Your task to perform on an android device: open chrome privacy settings Image 0: 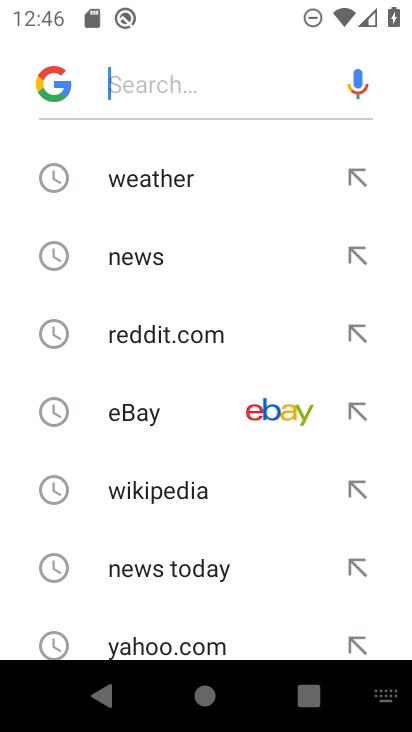
Step 0: press home button
Your task to perform on an android device: open chrome privacy settings Image 1: 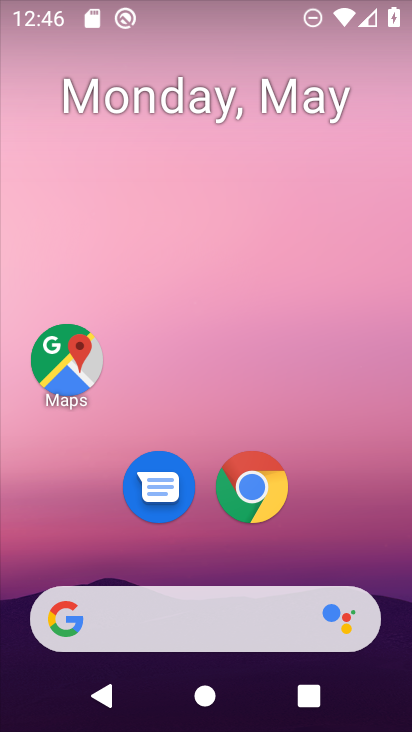
Step 1: click (254, 488)
Your task to perform on an android device: open chrome privacy settings Image 2: 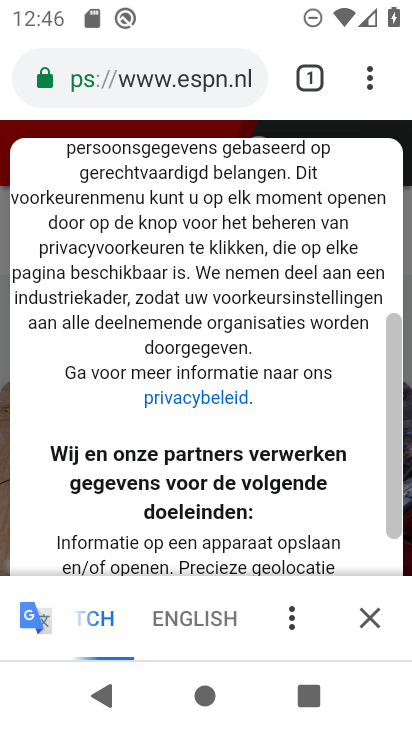
Step 2: click (373, 76)
Your task to perform on an android device: open chrome privacy settings Image 3: 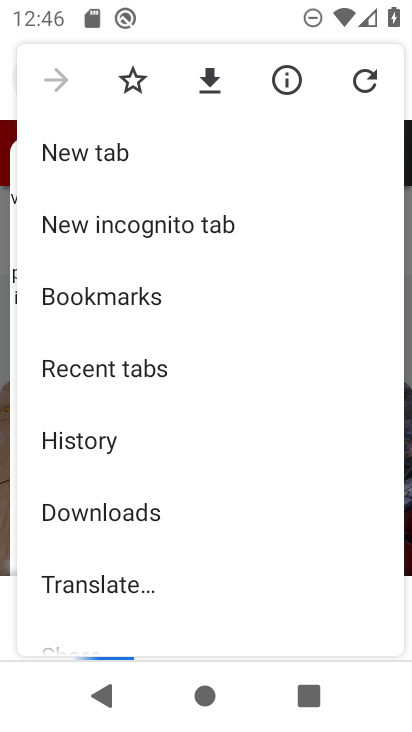
Step 3: drag from (171, 445) to (204, 328)
Your task to perform on an android device: open chrome privacy settings Image 4: 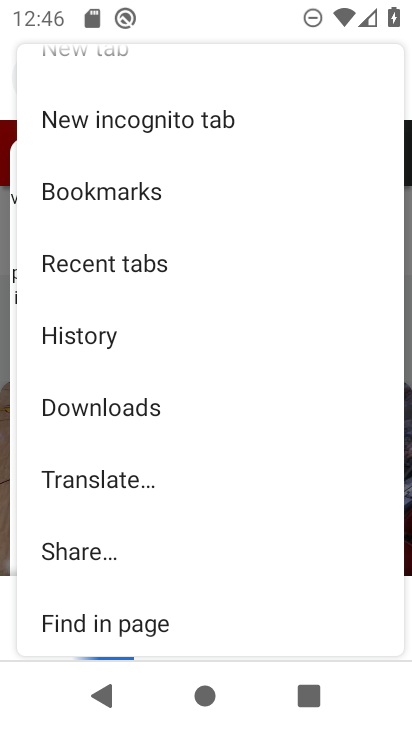
Step 4: drag from (149, 541) to (186, 451)
Your task to perform on an android device: open chrome privacy settings Image 5: 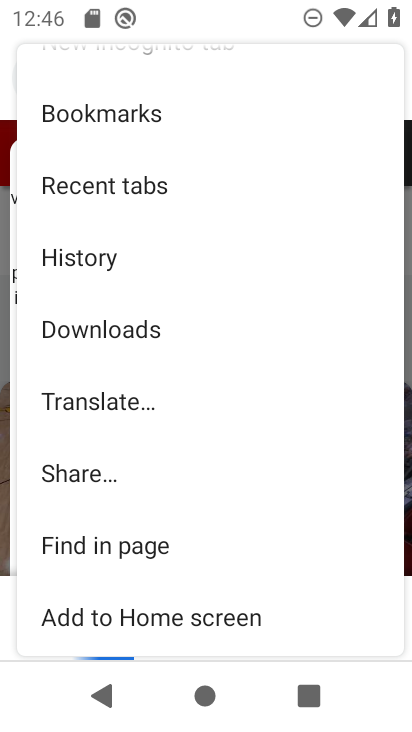
Step 5: drag from (157, 576) to (212, 476)
Your task to perform on an android device: open chrome privacy settings Image 6: 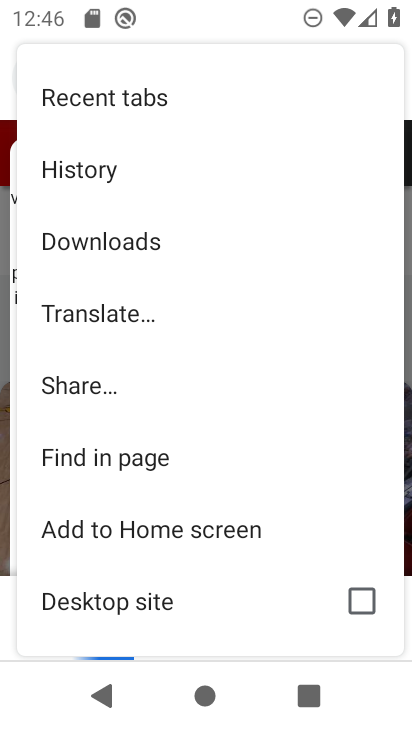
Step 6: drag from (200, 549) to (264, 470)
Your task to perform on an android device: open chrome privacy settings Image 7: 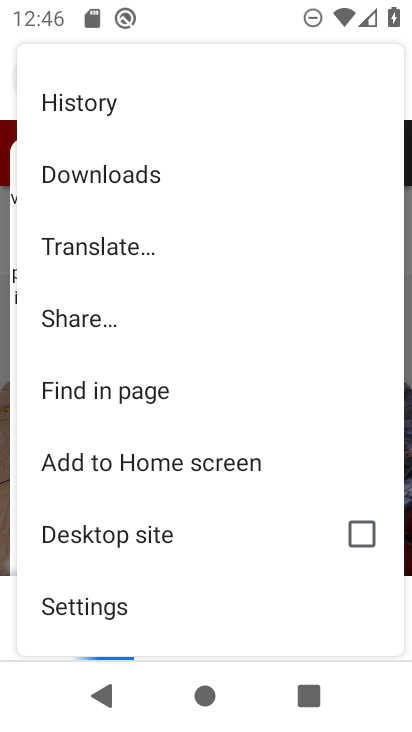
Step 7: drag from (146, 584) to (261, 461)
Your task to perform on an android device: open chrome privacy settings Image 8: 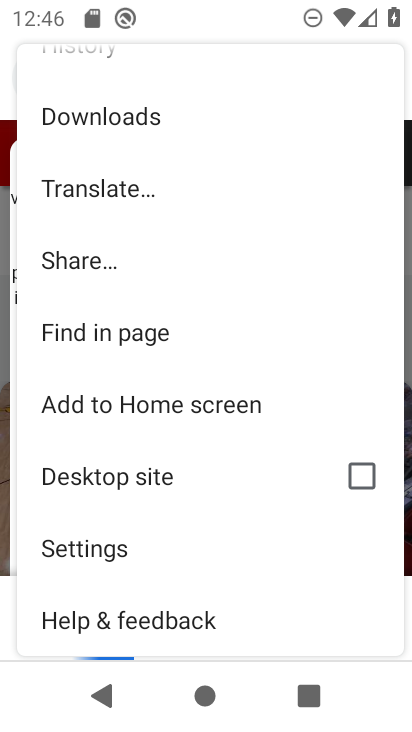
Step 8: click (79, 555)
Your task to perform on an android device: open chrome privacy settings Image 9: 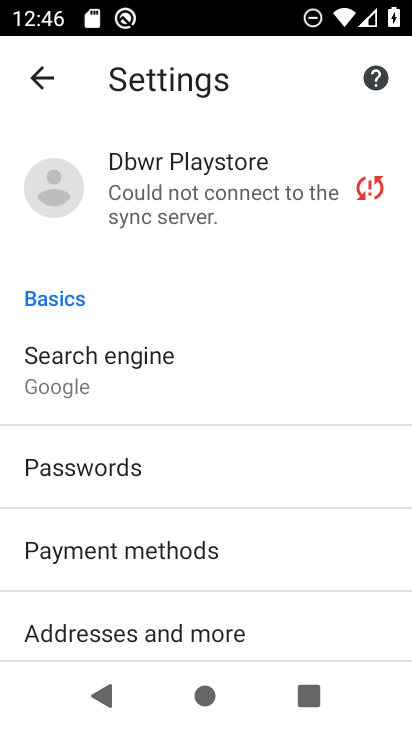
Step 9: drag from (155, 535) to (201, 443)
Your task to perform on an android device: open chrome privacy settings Image 10: 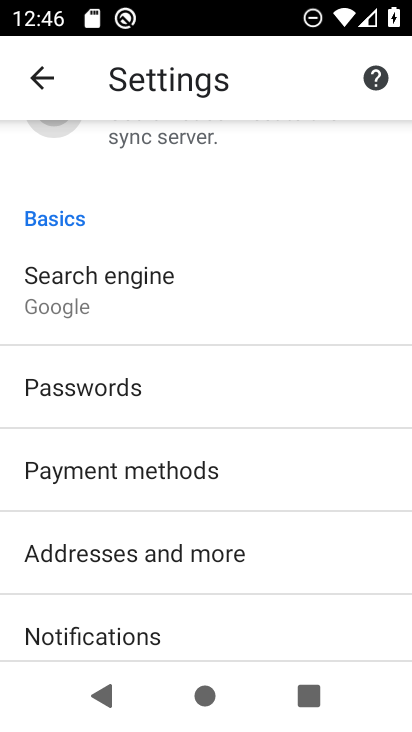
Step 10: drag from (139, 536) to (204, 454)
Your task to perform on an android device: open chrome privacy settings Image 11: 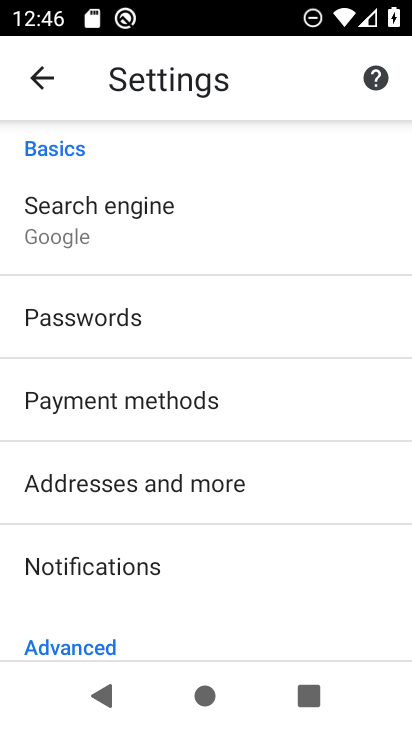
Step 11: drag from (169, 548) to (236, 445)
Your task to perform on an android device: open chrome privacy settings Image 12: 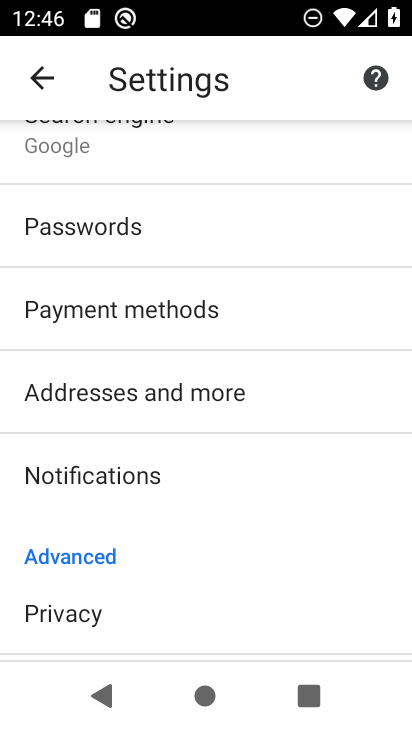
Step 12: drag from (199, 530) to (299, 374)
Your task to perform on an android device: open chrome privacy settings Image 13: 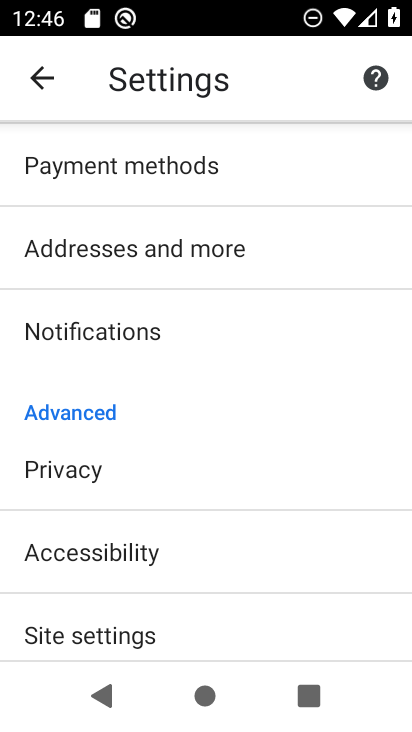
Step 13: click (69, 476)
Your task to perform on an android device: open chrome privacy settings Image 14: 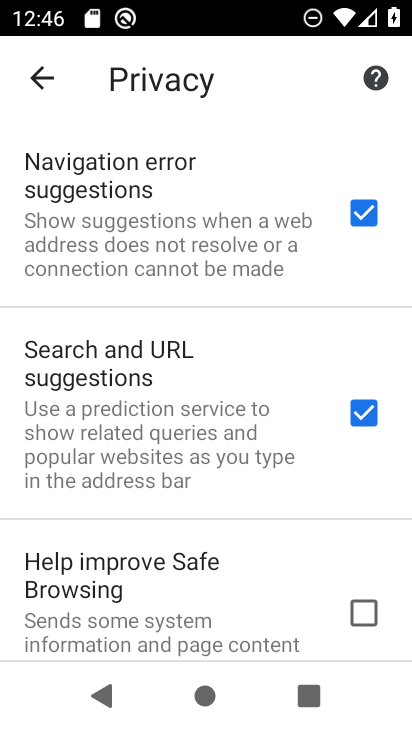
Step 14: task complete